Your task to perform on an android device: Go to settings Image 0: 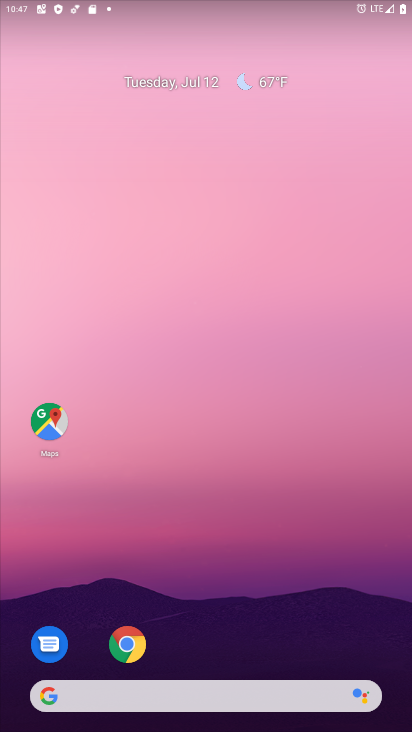
Step 0: drag from (229, 604) to (288, 112)
Your task to perform on an android device: Go to settings Image 1: 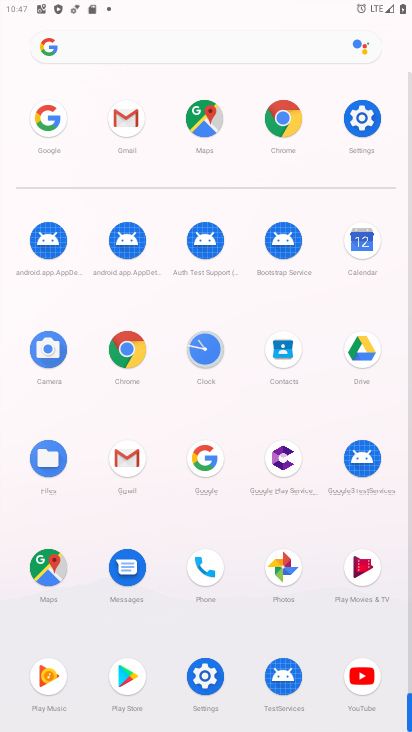
Step 1: click (197, 685)
Your task to perform on an android device: Go to settings Image 2: 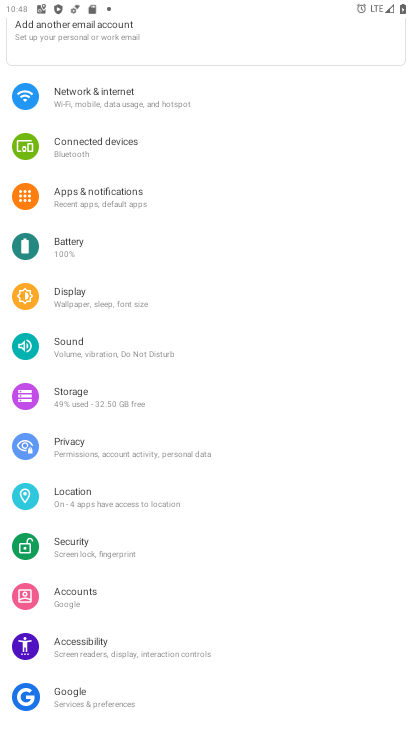
Step 2: task complete